Your task to perform on an android device: visit the assistant section in the google photos Image 0: 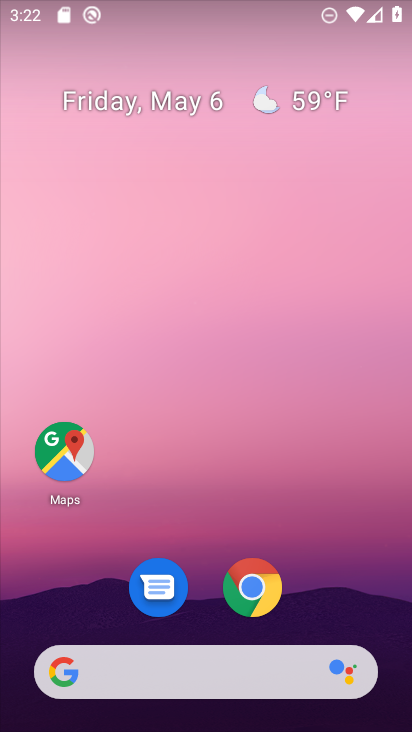
Step 0: drag from (361, 490) to (389, 165)
Your task to perform on an android device: visit the assistant section in the google photos Image 1: 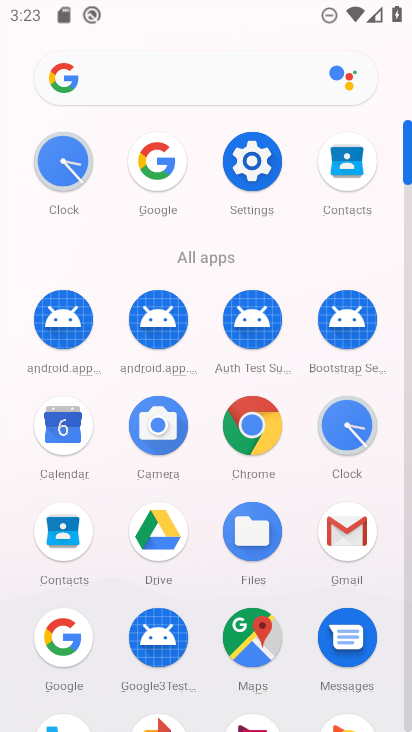
Step 1: drag from (399, 480) to (398, 188)
Your task to perform on an android device: visit the assistant section in the google photos Image 2: 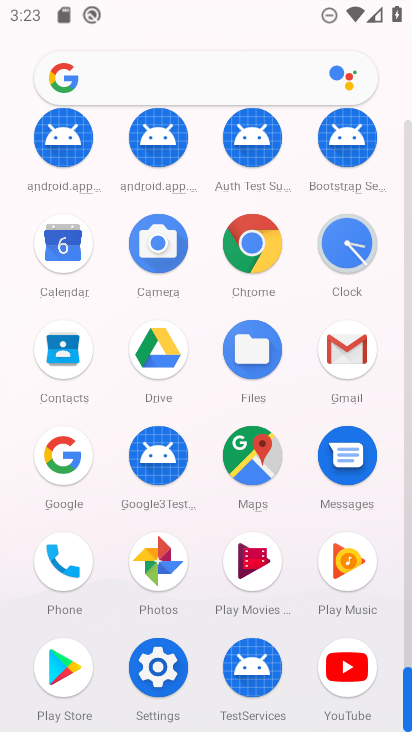
Step 2: click (157, 580)
Your task to perform on an android device: visit the assistant section in the google photos Image 3: 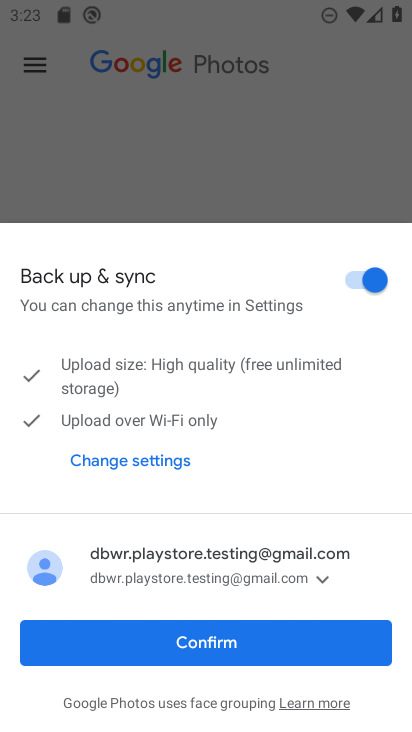
Step 3: click (197, 654)
Your task to perform on an android device: visit the assistant section in the google photos Image 4: 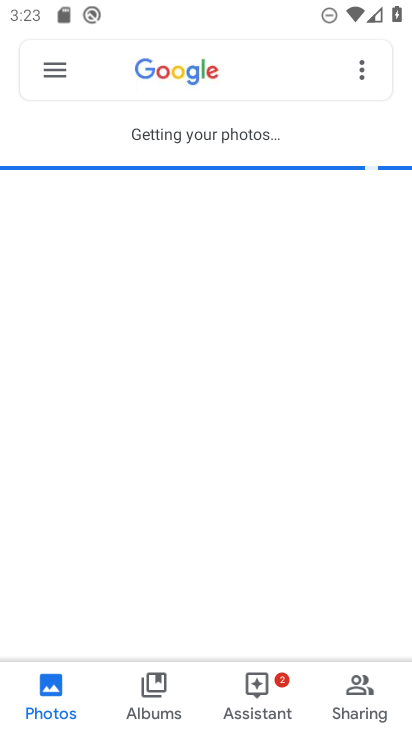
Step 4: click (259, 704)
Your task to perform on an android device: visit the assistant section in the google photos Image 5: 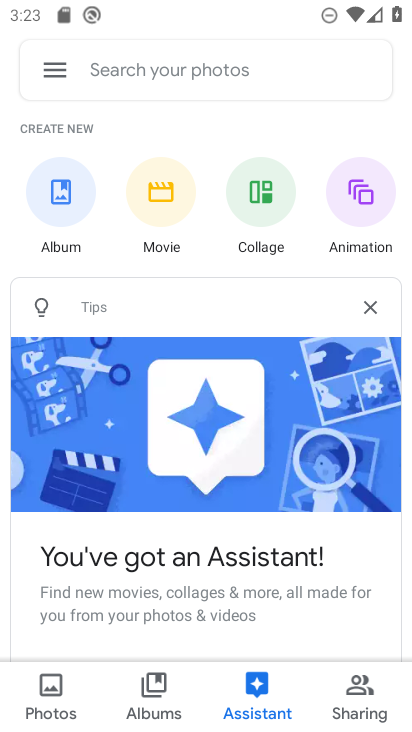
Step 5: task complete